Your task to perform on an android device: What's the weather going to be tomorrow? Image 0: 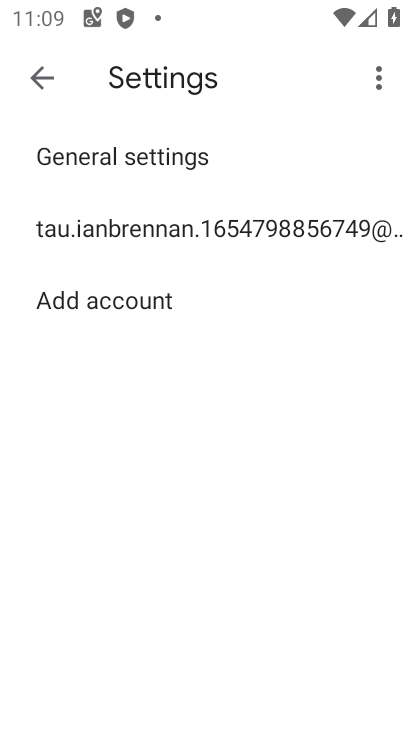
Step 0: press home button
Your task to perform on an android device: What's the weather going to be tomorrow? Image 1: 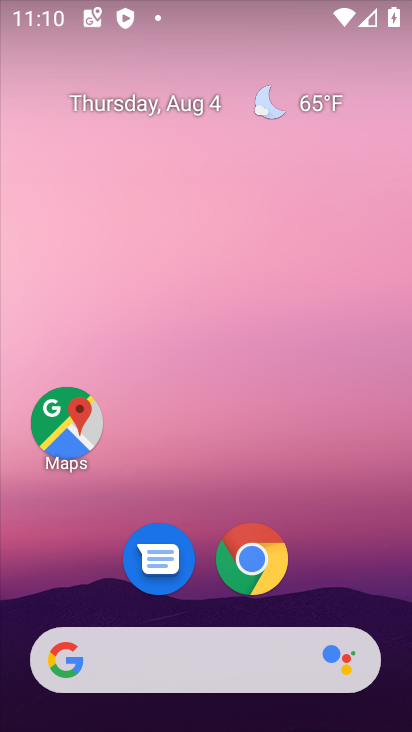
Step 1: drag from (357, 572) to (310, 169)
Your task to perform on an android device: What's the weather going to be tomorrow? Image 2: 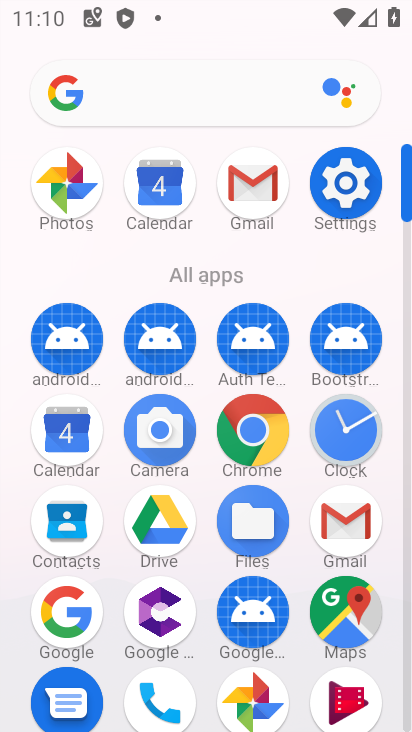
Step 2: click (80, 606)
Your task to perform on an android device: What's the weather going to be tomorrow? Image 3: 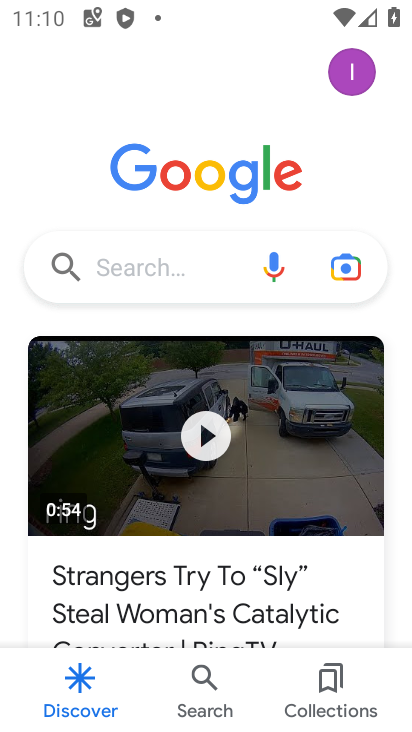
Step 3: click (189, 267)
Your task to perform on an android device: What's the weather going to be tomorrow? Image 4: 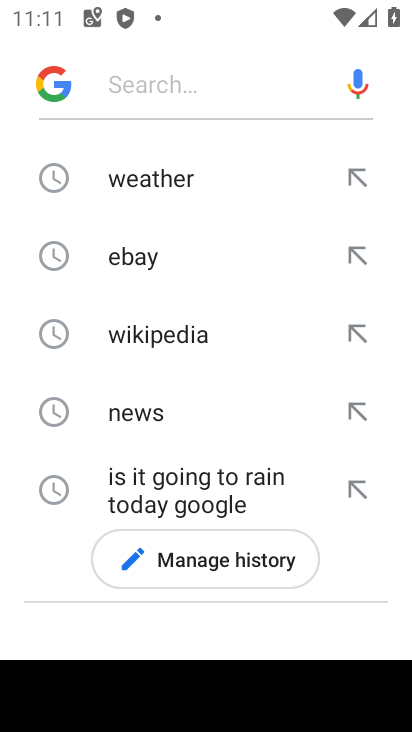
Step 4: click (171, 166)
Your task to perform on an android device: What's the weather going to be tomorrow? Image 5: 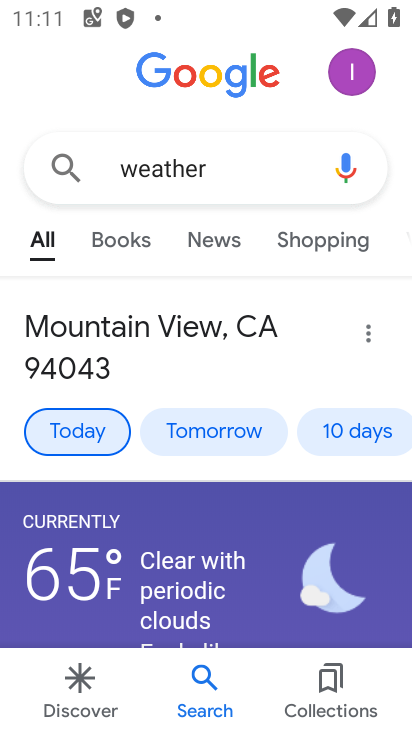
Step 5: drag from (285, 504) to (236, 277)
Your task to perform on an android device: What's the weather going to be tomorrow? Image 6: 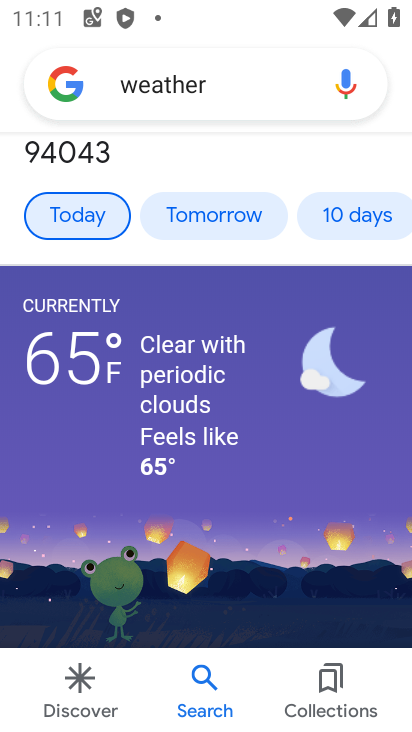
Step 6: click (178, 203)
Your task to perform on an android device: What's the weather going to be tomorrow? Image 7: 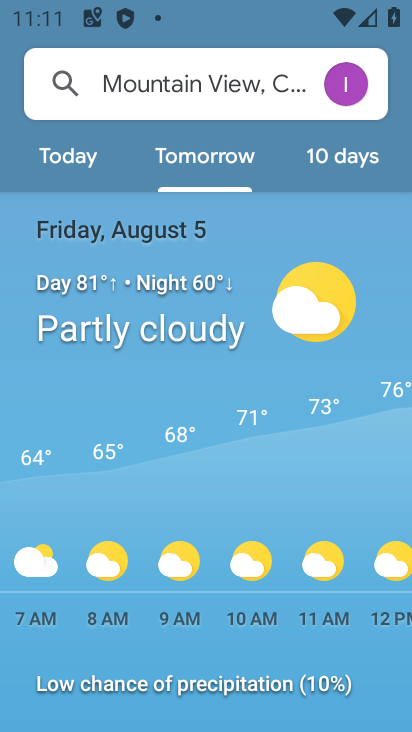
Step 7: task complete